Your task to perform on an android device: change the clock display to digital Image 0: 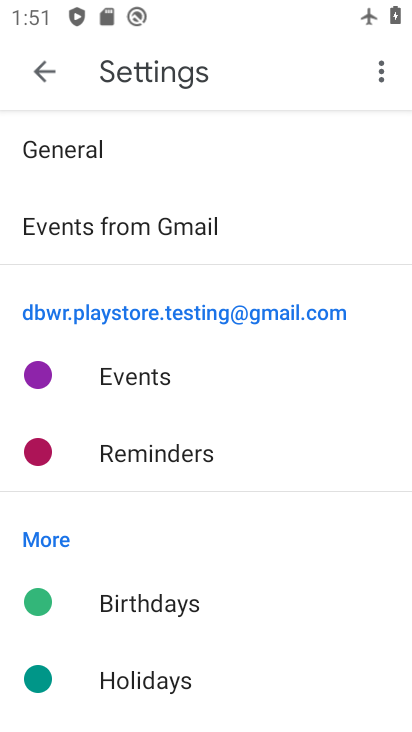
Step 0: press home button
Your task to perform on an android device: change the clock display to digital Image 1: 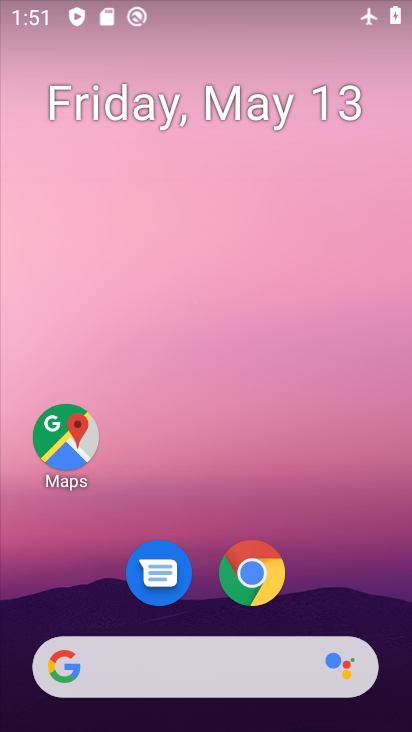
Step 1: drag from (387, 582) to (319, 13)
Your task to perform on an android device: change the clock display to digital Image 2: 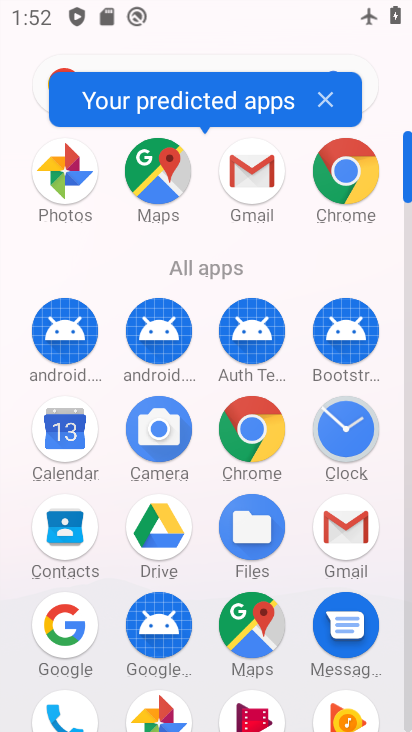
Step 2: click (341, 421)
Your task to perform on an android device: change the clock display to digital Image 3: 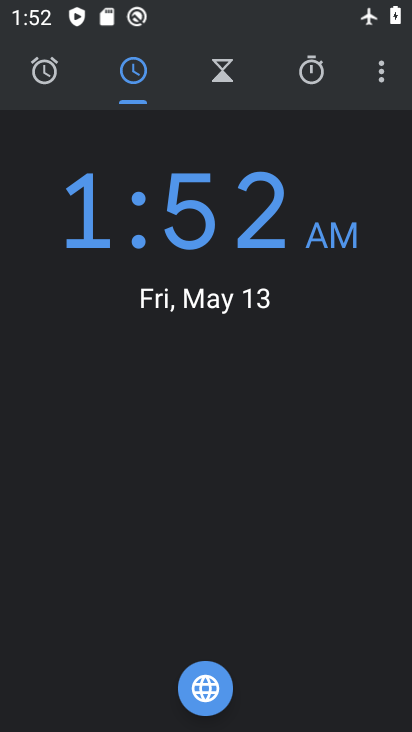
Step 3: click (372, 83)
Your task to perform on an android device: change the clock display to digital Image 4: 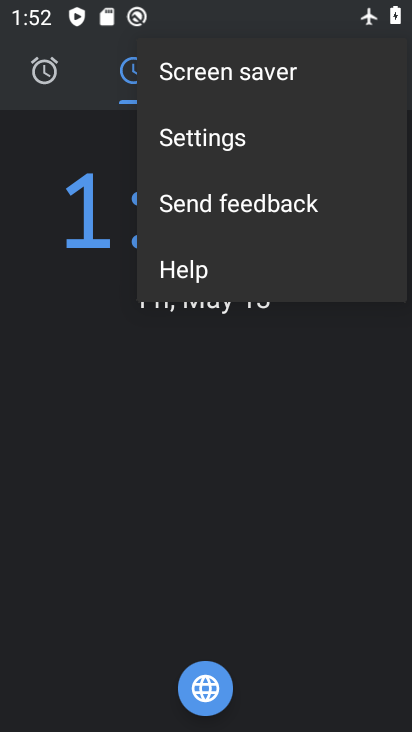
Step 4: click (233, 149)
Your task to perform on an android device: change the clock display to digital Image 5: 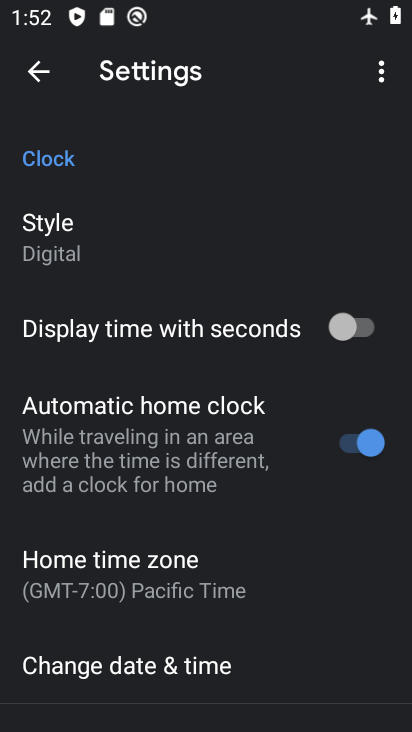
Step 5: click (266, 218)
Your task to perform on an android device: change the clock display to digital Image 6: 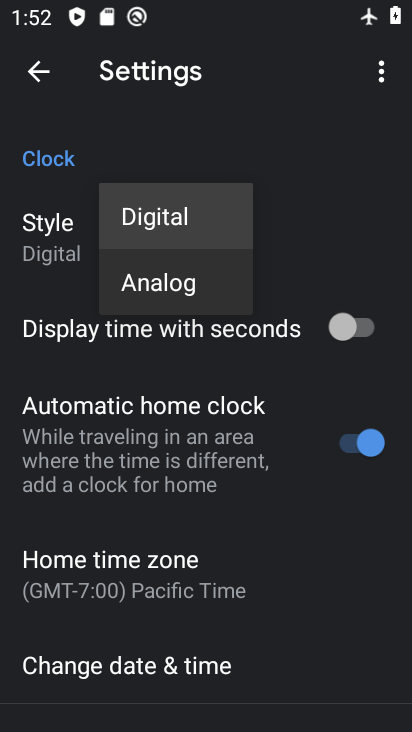
Step 6: task complete